Your task to perform on an android device: empty trash in the gmail app Image 0: 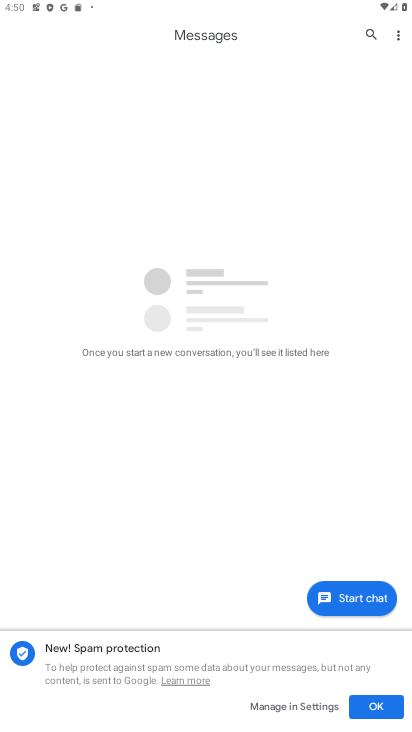
Step 0: press home button
Your task to perform on an android device: empty trash in the gmail app Image 1: 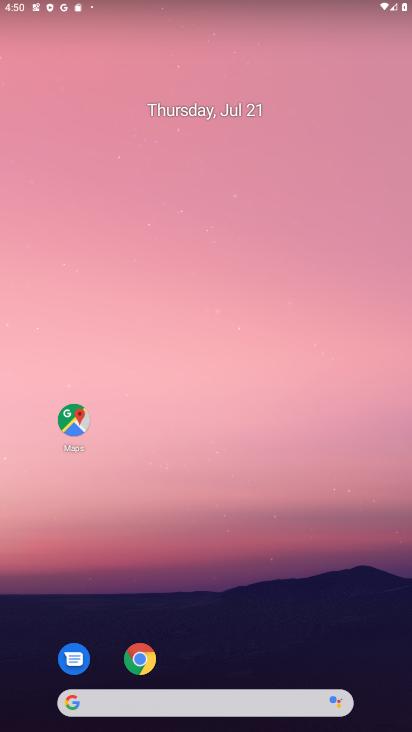
Step 1: drag from (247, 611) to (221, 113)
Your task to perform on an android device: empty trash in the gmail app Image 2: 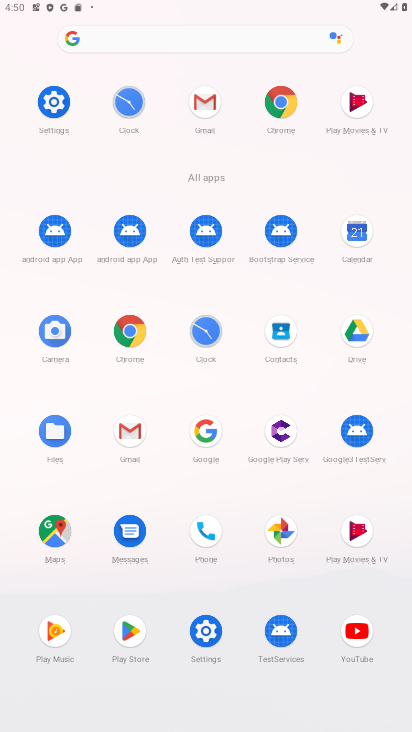
Step 2: click (205, 107)
Your task to perform on an android device: empty trash in the gmail app Image 3: 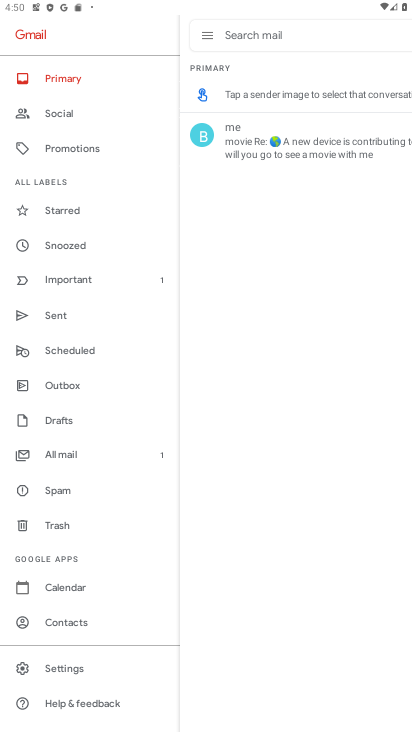
Step 3: click (56, 519)
Your task to perform on an android device: empty trash in the gmail app Image 4: 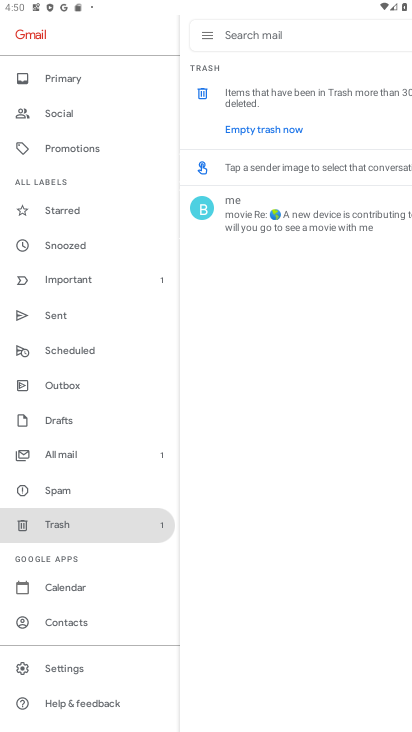
Step 4: click (244, 128)
Your task to perform on an android device: empty trash in the gmail app Image 5: 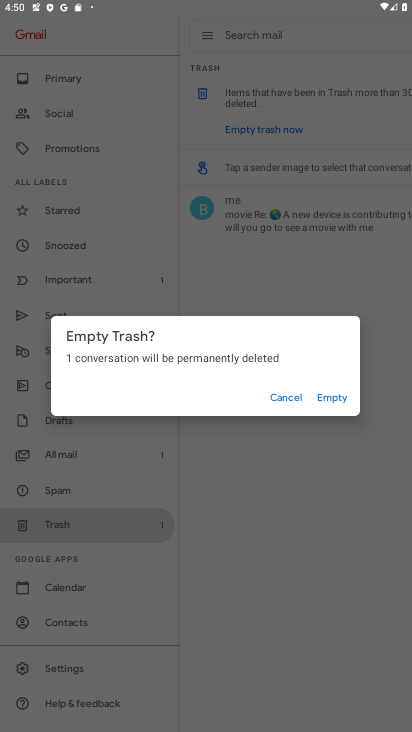
Step 5: click (332, 393)
Your task to perform on an android device: empty trash in the gmail app Image 6: 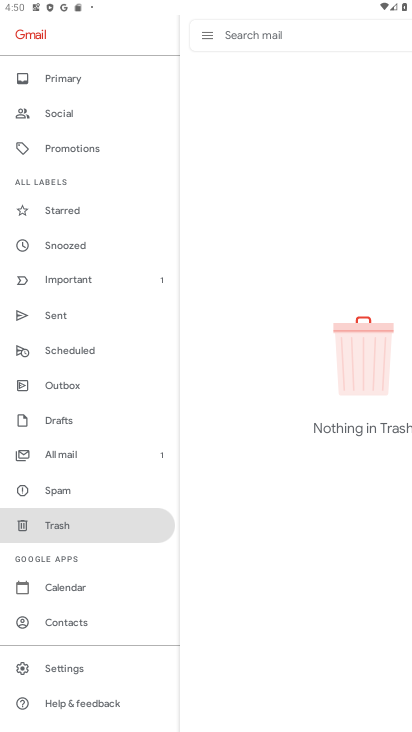
Step 6: task complete